Your task to perform on an android device: Play the last video I watched on Youtube Image 0: 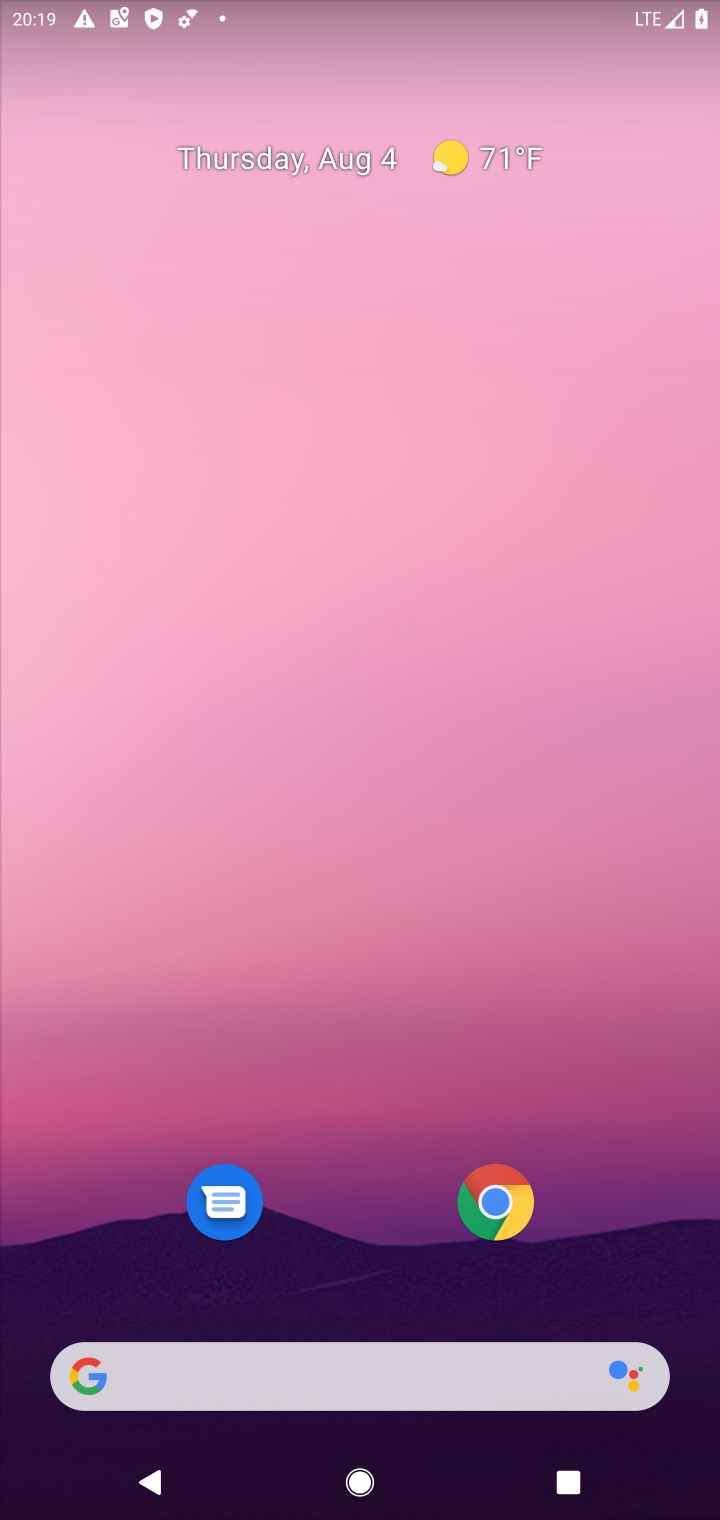
Step 0: drag from (342, 914) to (342, 196)
Your task to perform on an android device: Play the last video I watched on Youtube Image 1: 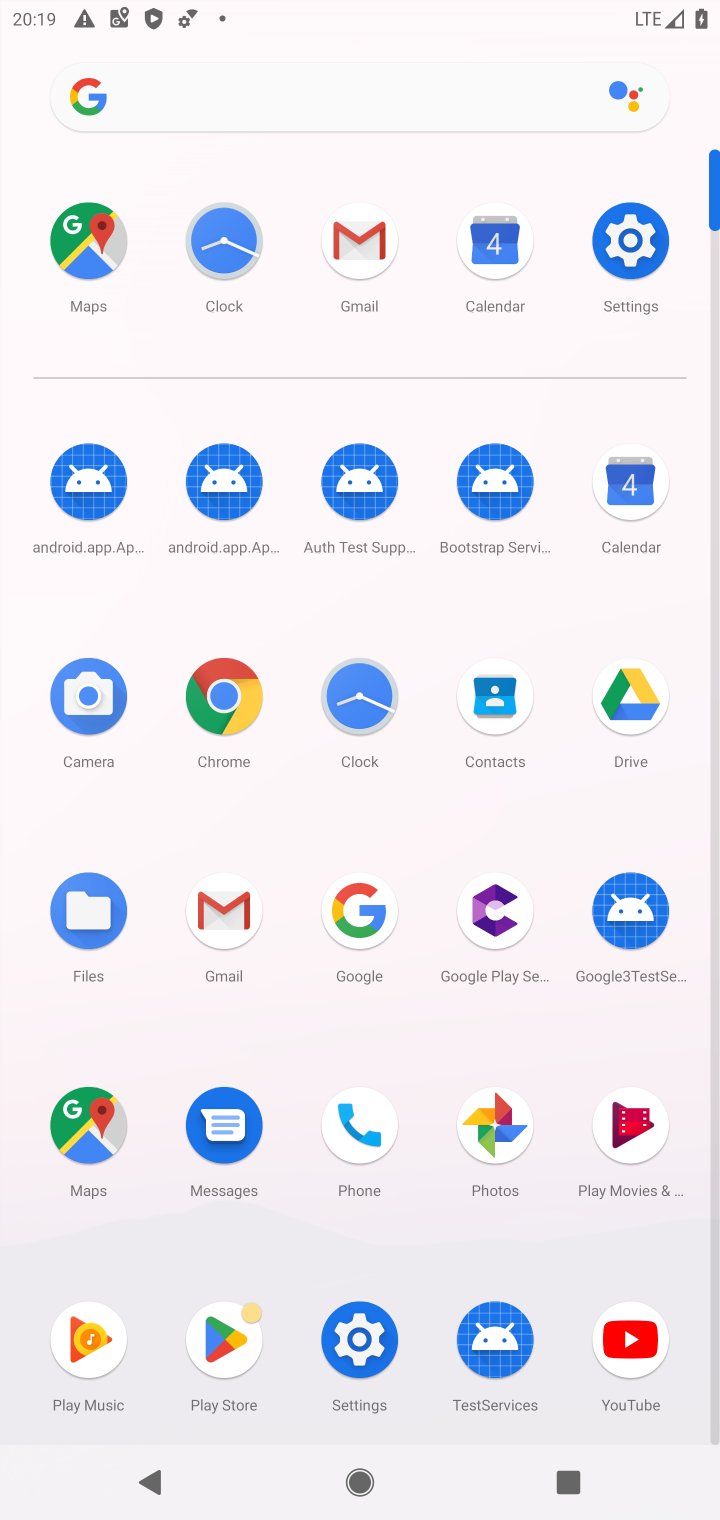
Step 1: click (639, 1332)
Your task to perform on an android device: Play the last video I watched on Youtube Image 2: 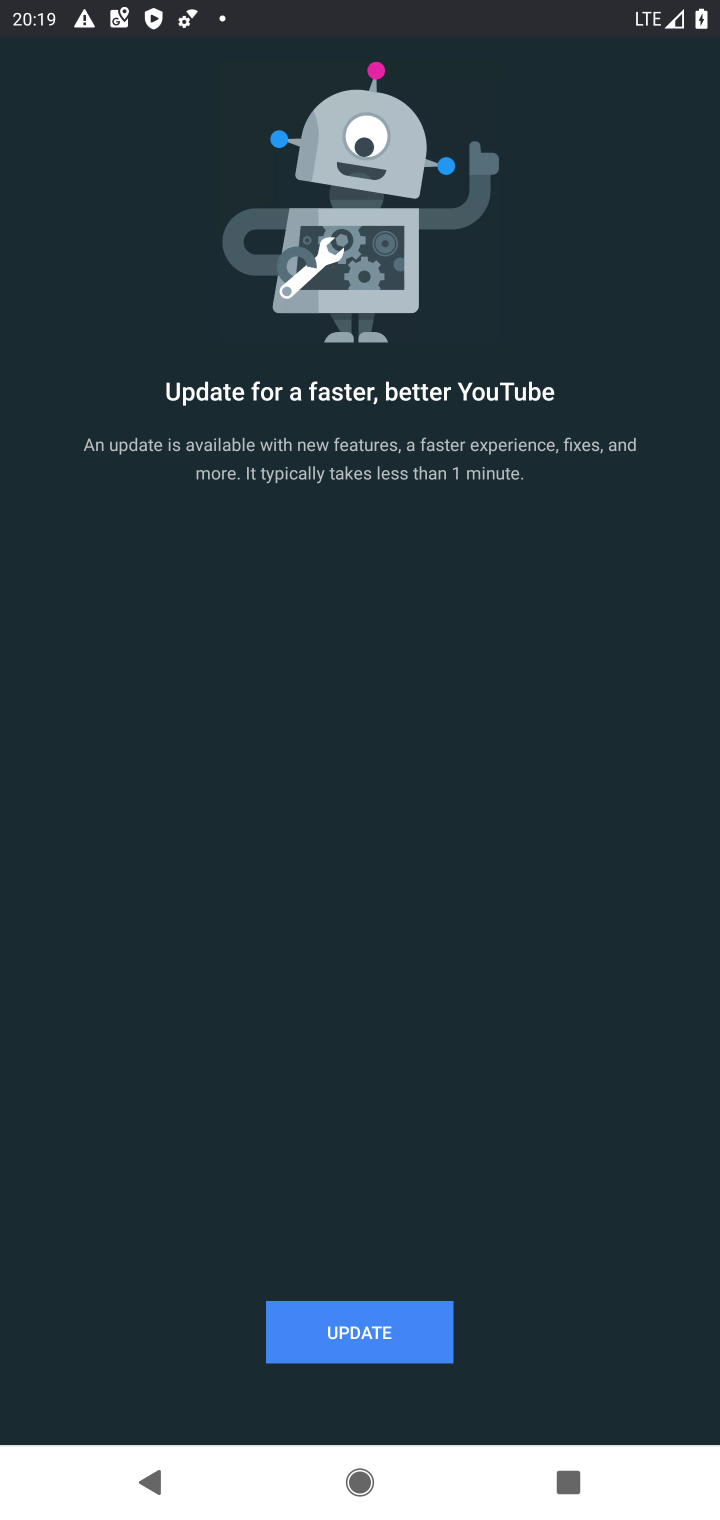
Step 2: click (342, 1346)
Your task to perform on an android device: Play the last video I watched on Youtube Image 3: 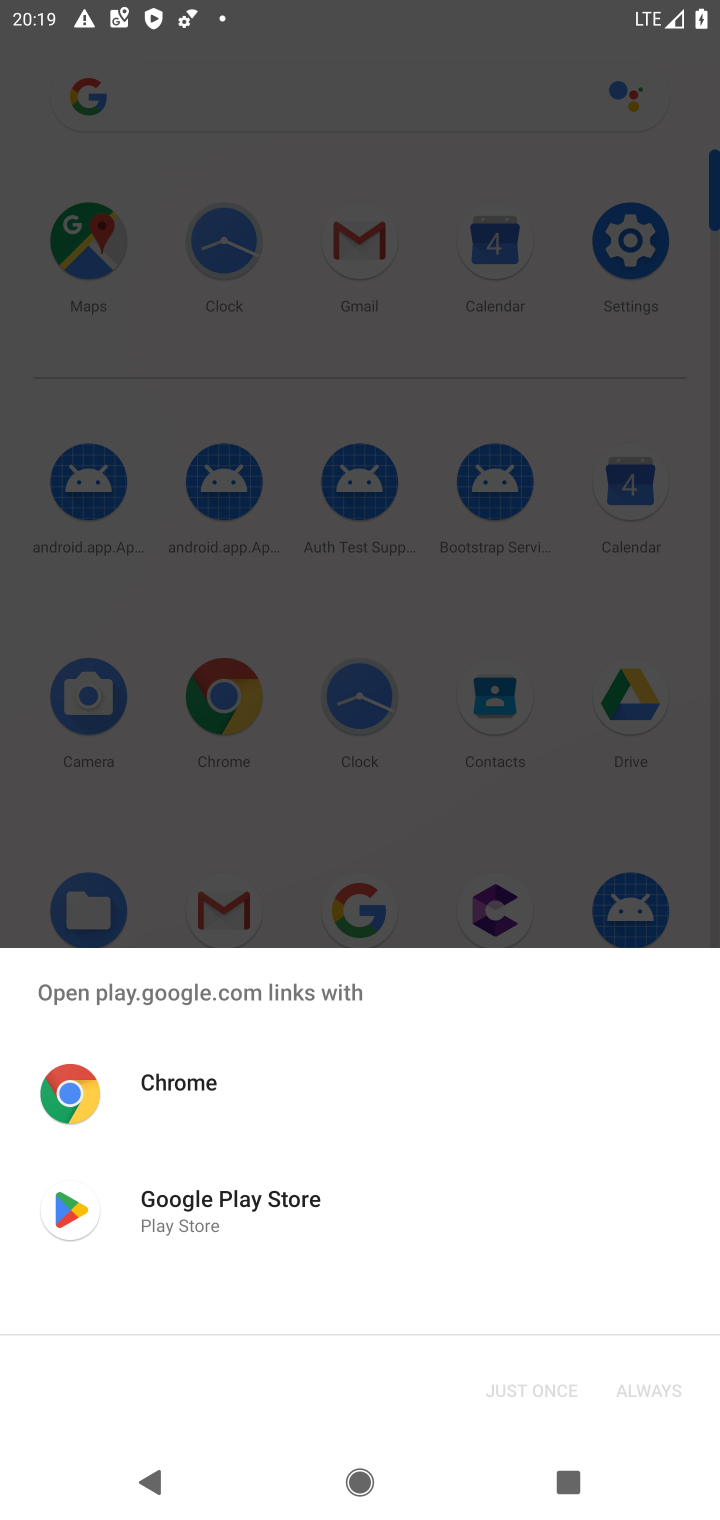
Step 3: click (221, 1185)
Your task to perform on an android device: Play the last video I watched on Youtube Image 4: 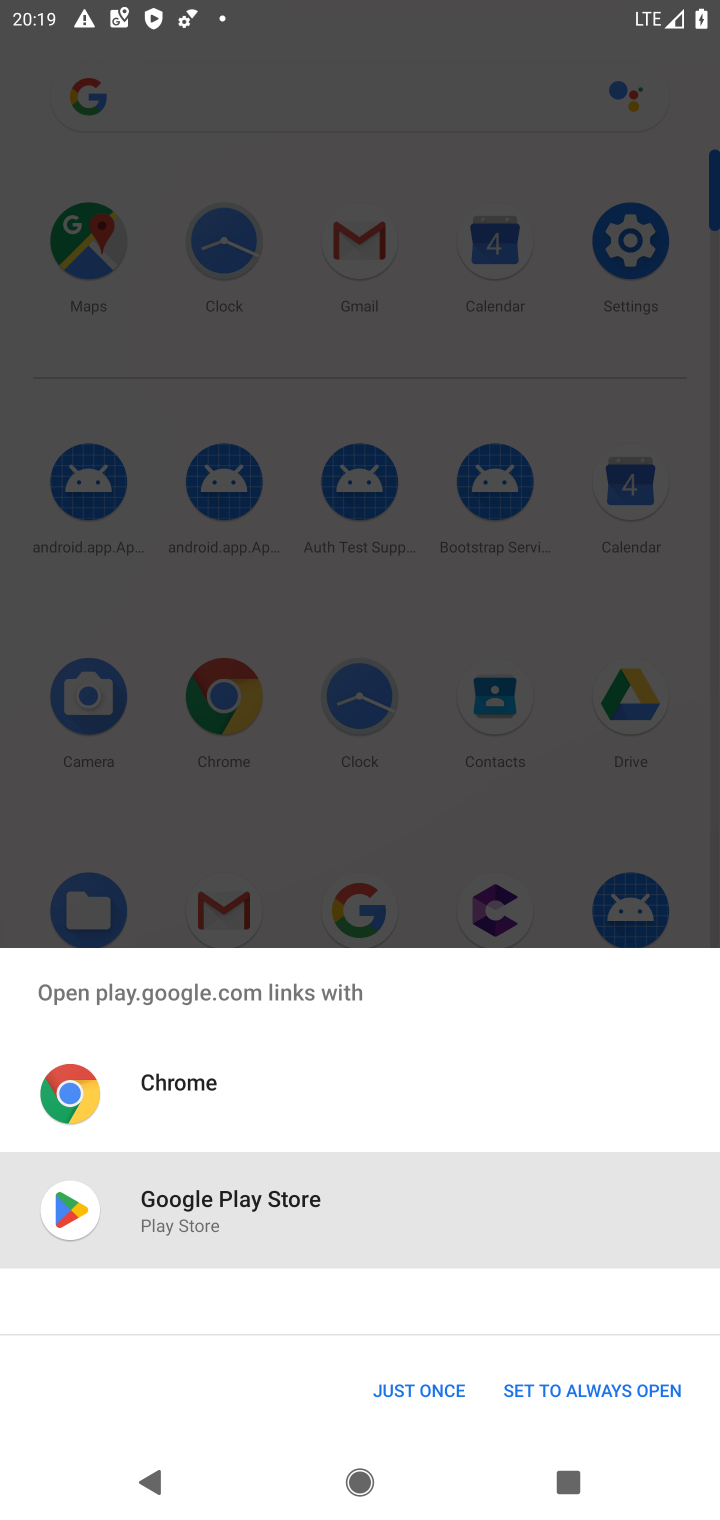
Step 4: click (397, 1391)
Your task to perform on an android device: Play the last video I watched on Youtube Image 5: 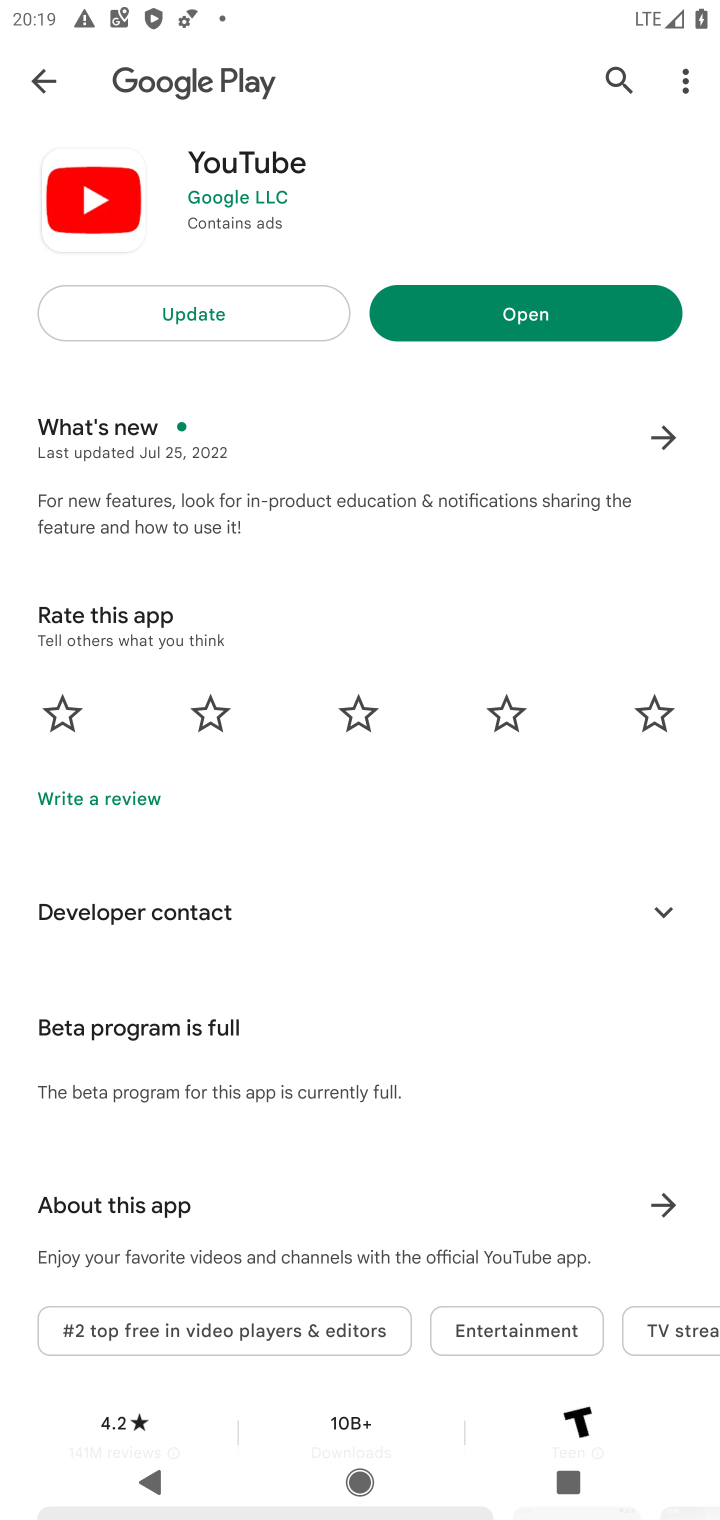
Step 5: click (227, 323)
Your task to perform on an android device: Play the last video I watched on Youtube Image 6: 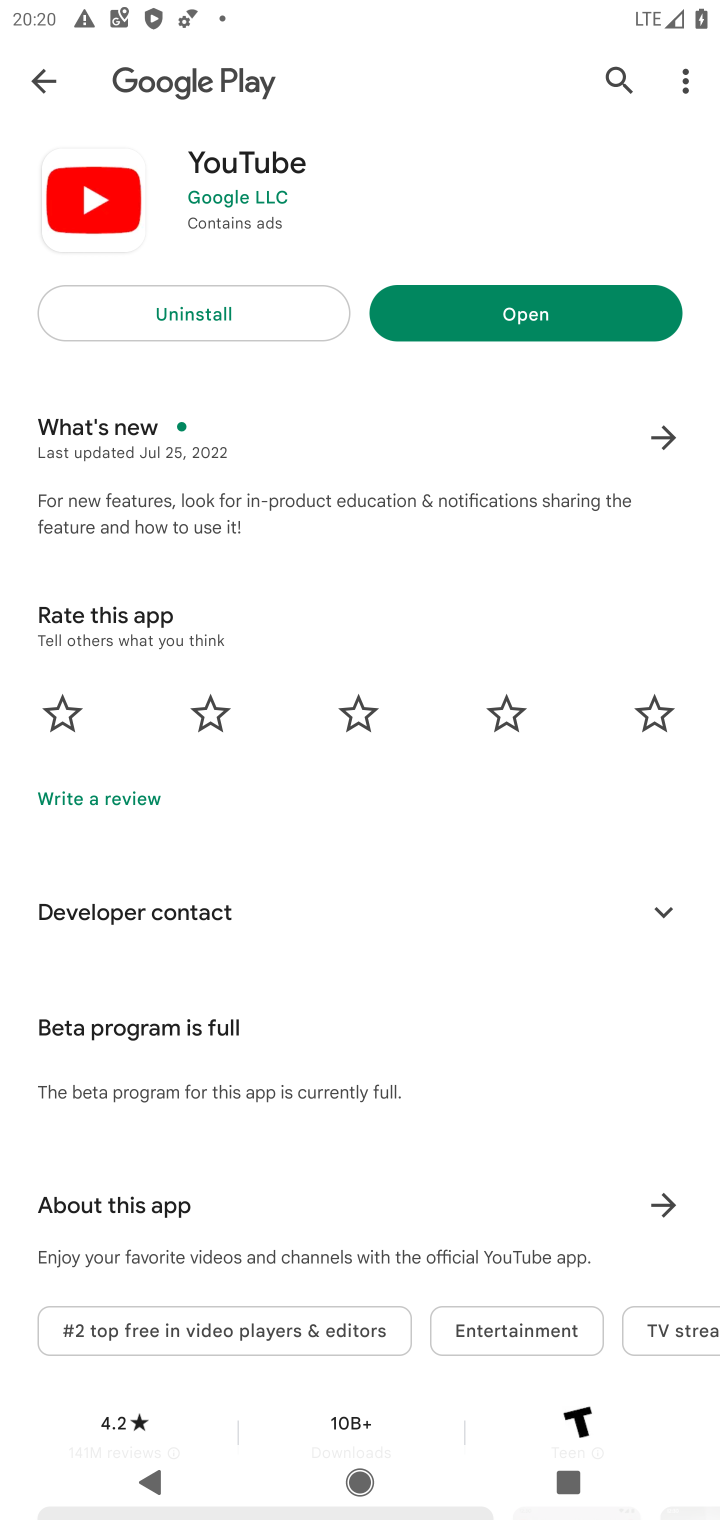
Step 6: click (558, 316)
Your task to perform on an android device: Play the last video I watched on Youtube Image 7: 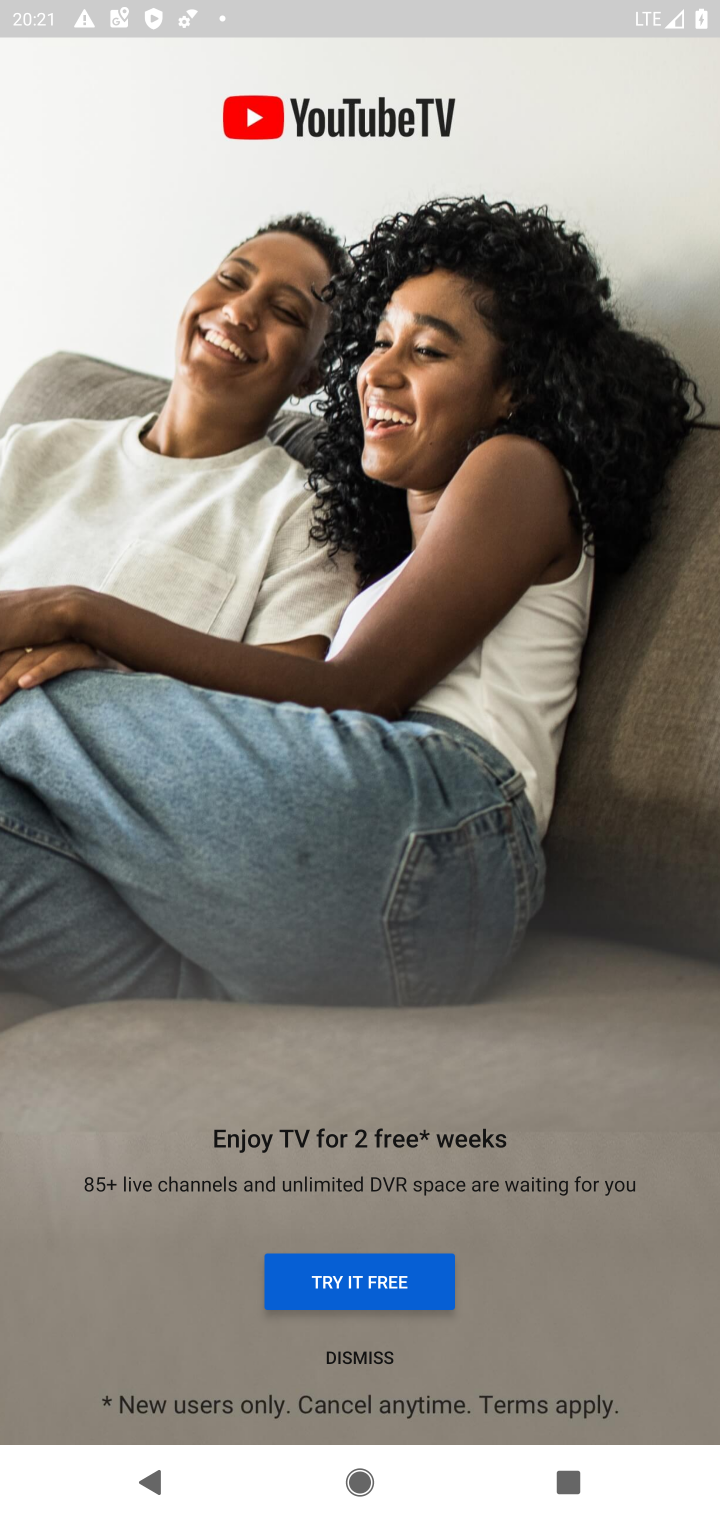
Step 7: click (382, 1287)
Your task to perform on an android device: Play the last video I watched on Youtube Image 8: 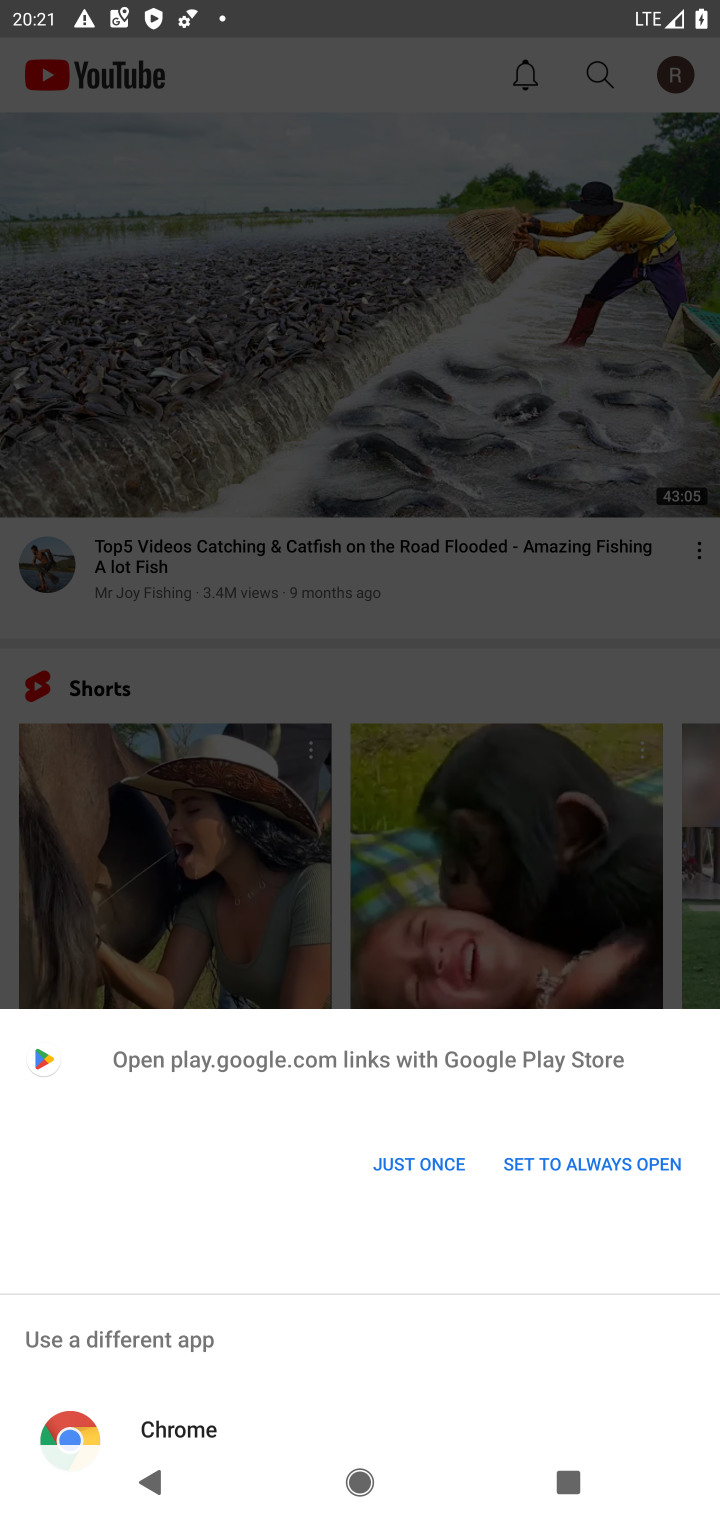
Step 8: click (486, 779)
Your task to perform on an android device: Play the last video I watched on Youtube Image 9: 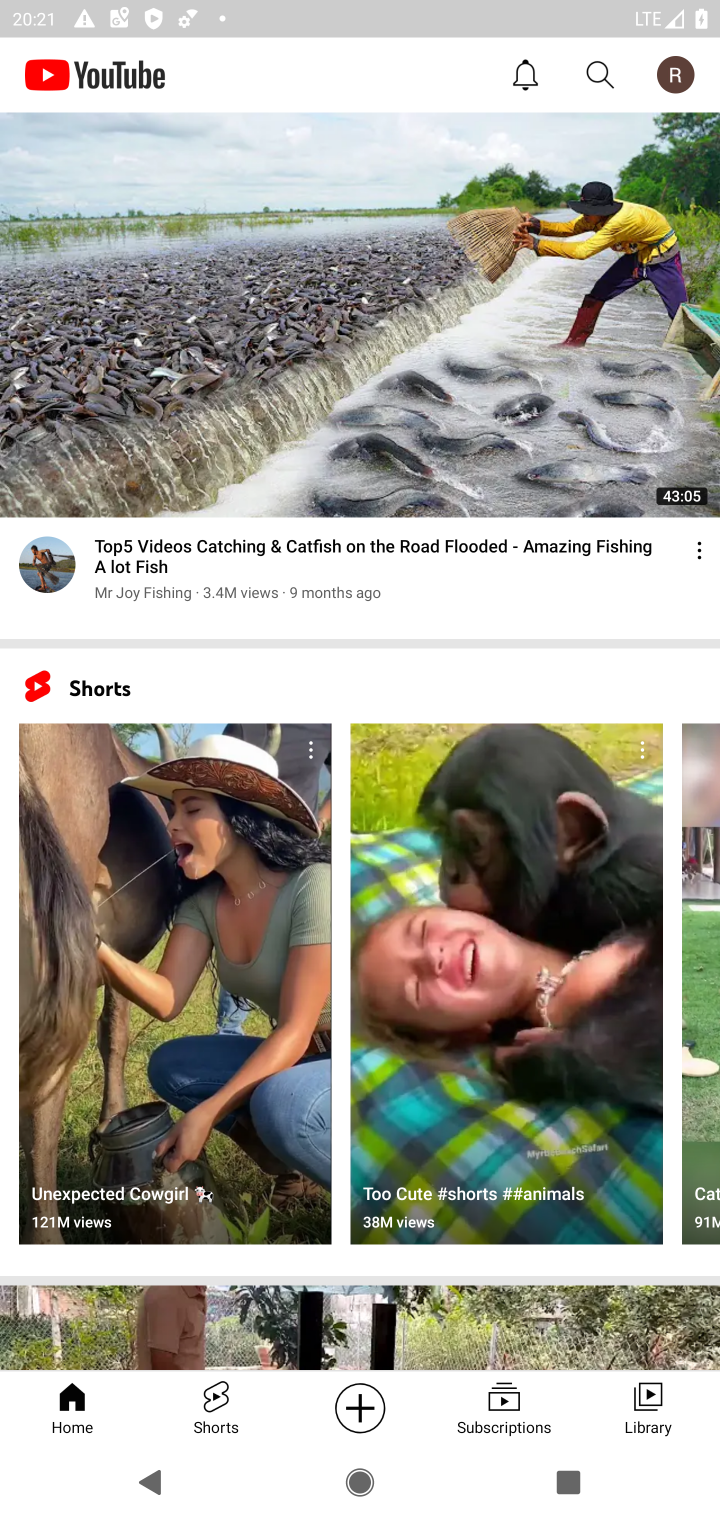
Step 9: click (650, 1432)
Your task to perform on an android device: Play the last video I watched on Youtube Image 10: 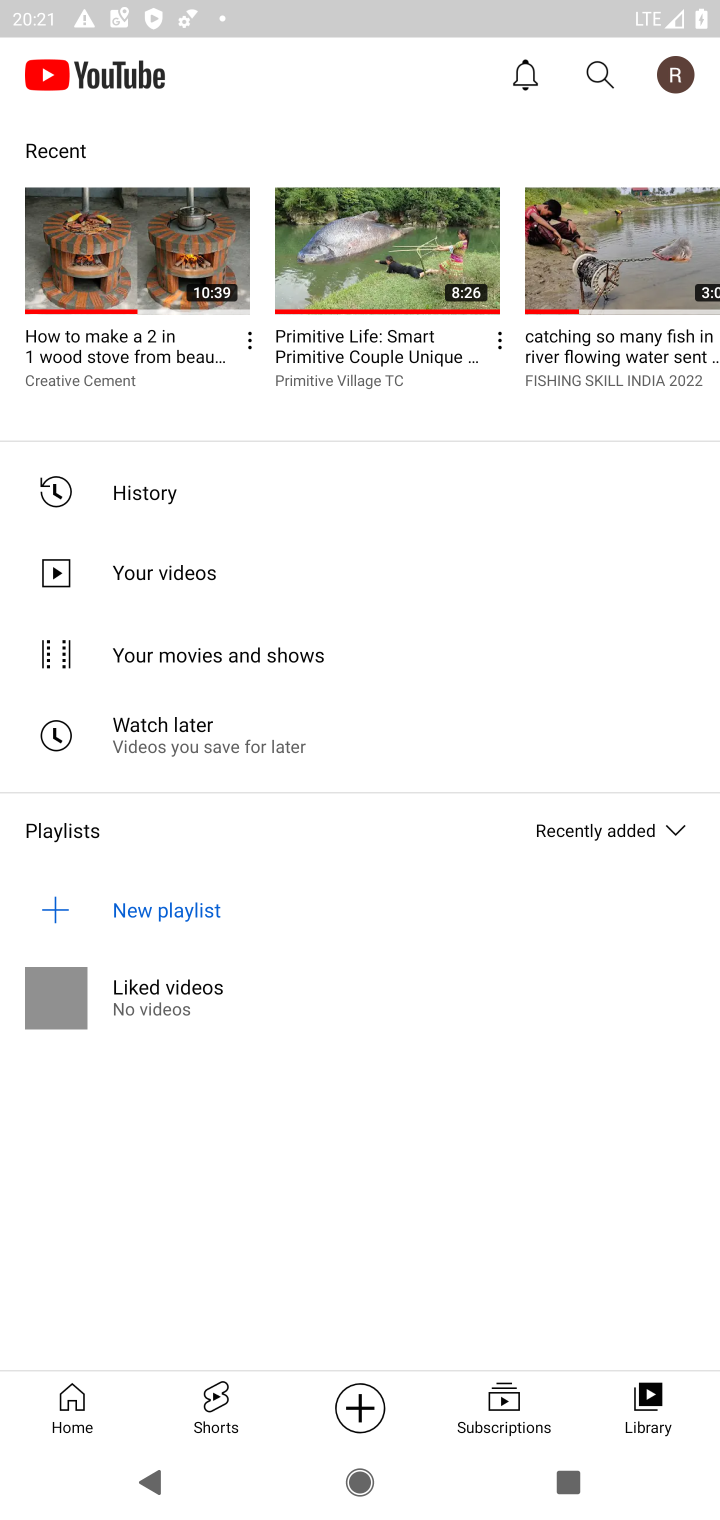
Step 10: click (200, 480)
Your task to perform on an android device: Play the last video I watched on Youtube Image 11: 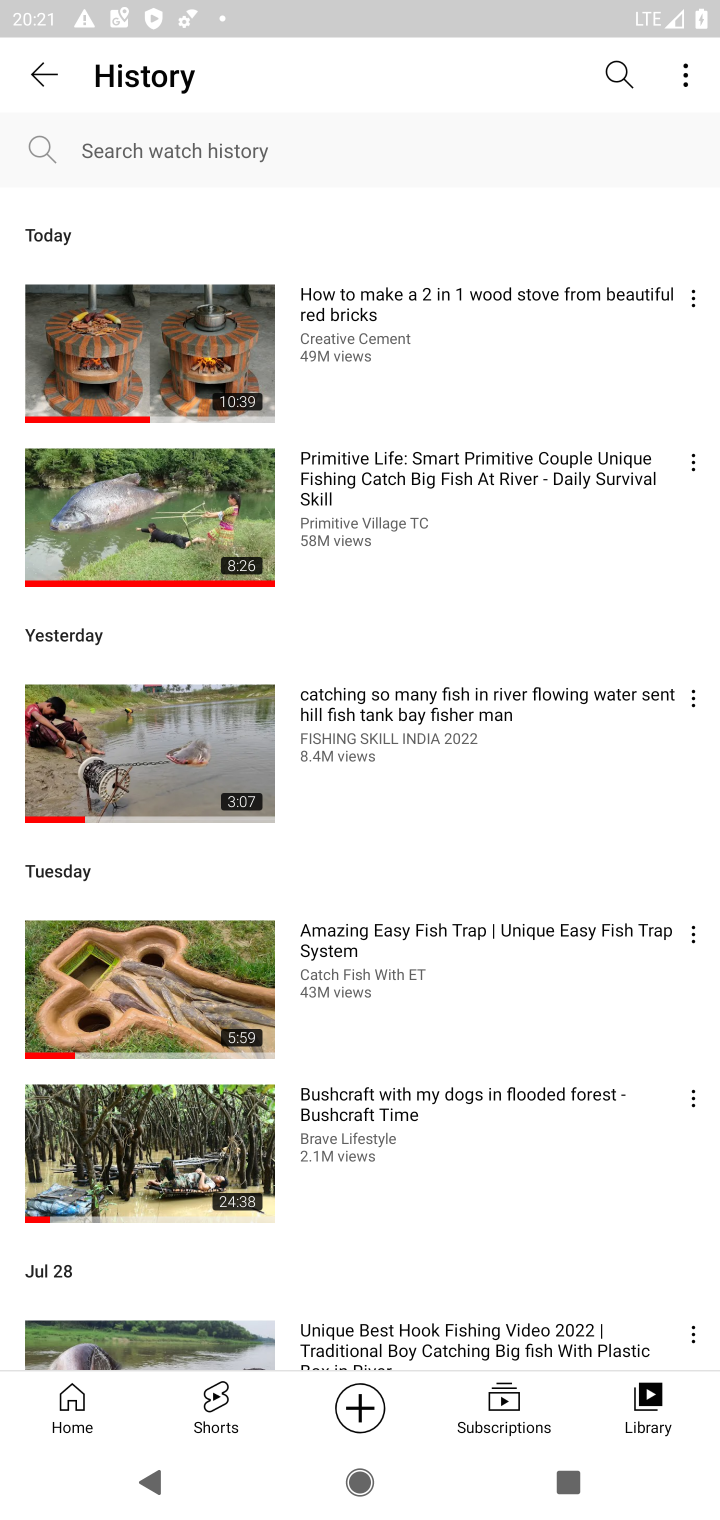
Step 11: click (171, 334)
Your task to perform on an android device: Play the last video I watched on Youtube Image 12: 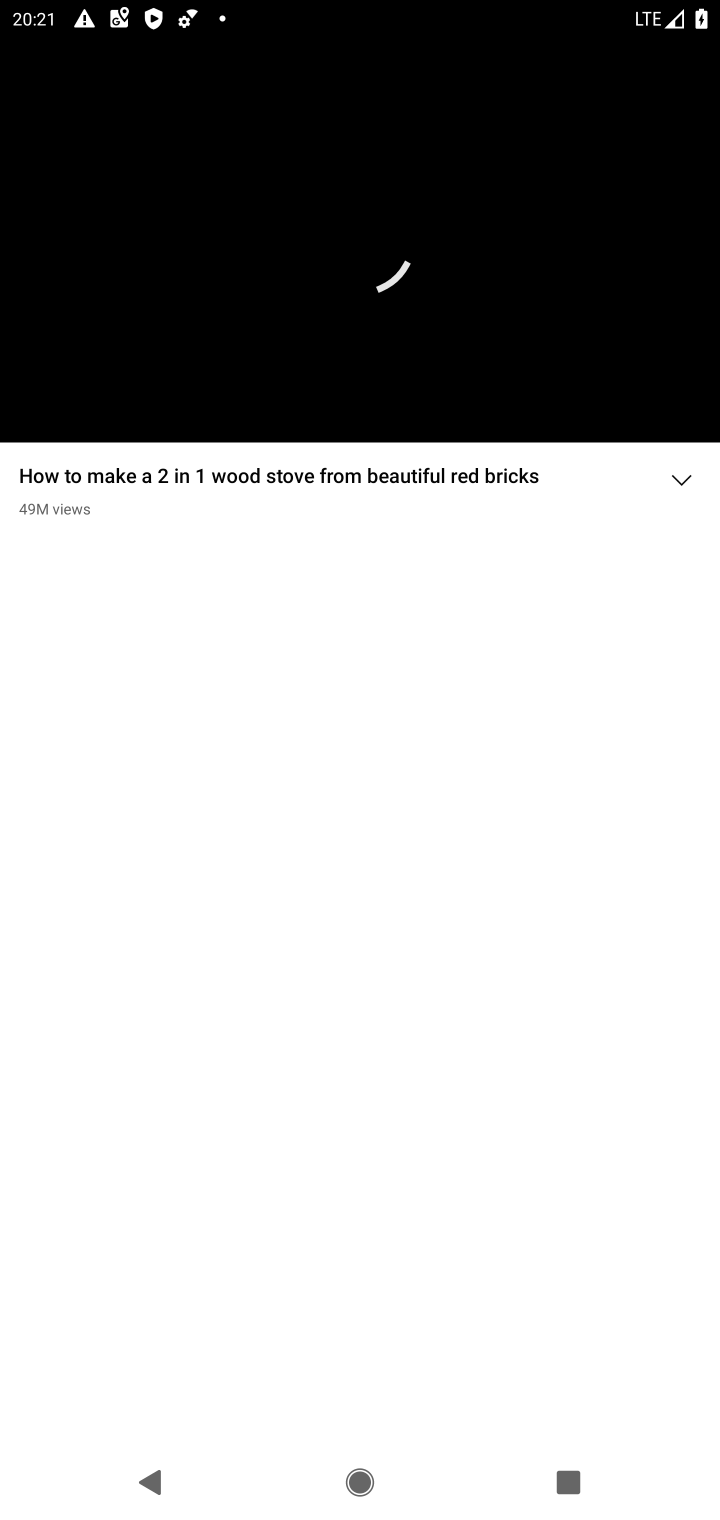
Step 12: click (359, 262)
Your task to perform on an android device: Play the last video I watched on Youtube Image 13: 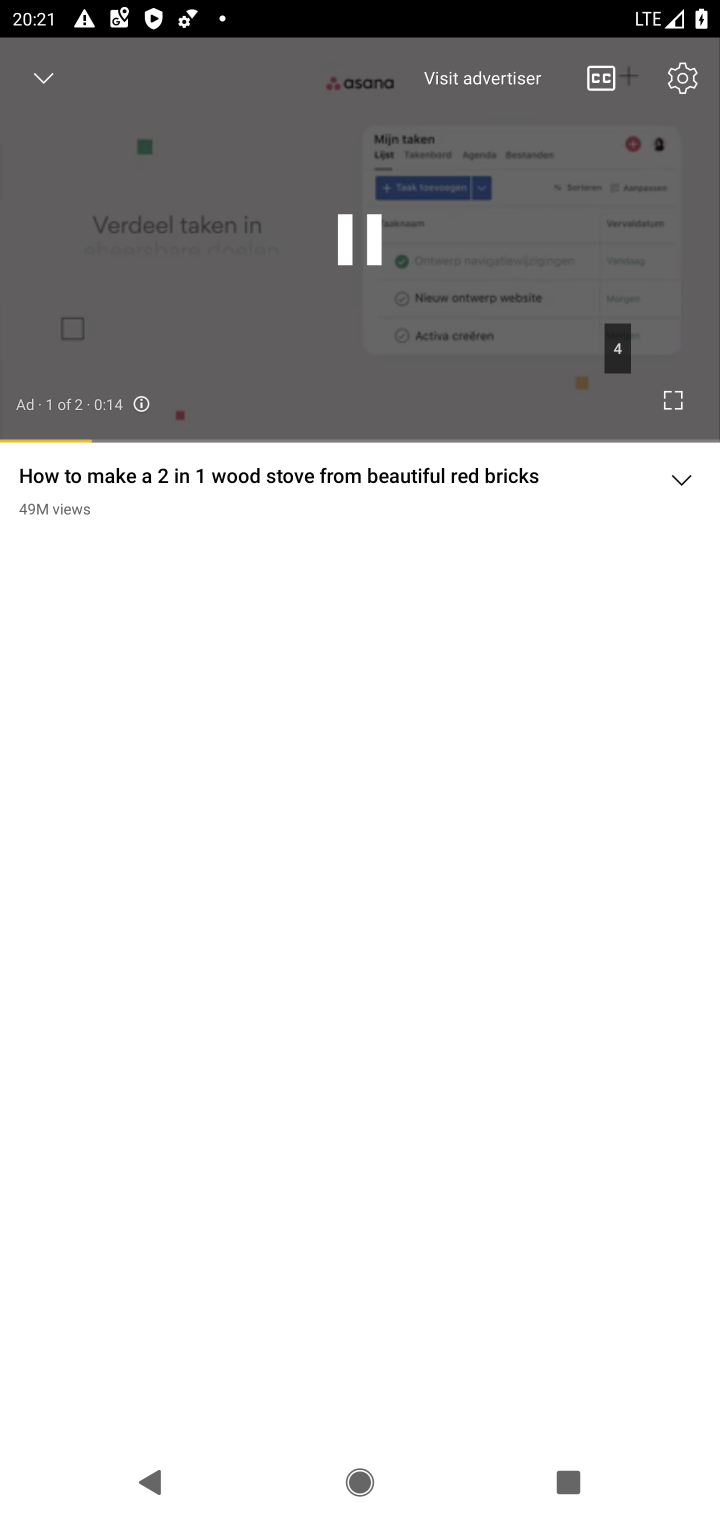
Step 13: click (362, 260)
Your task to perform on an android device: Play the last video I watched on Youtube Image 14: 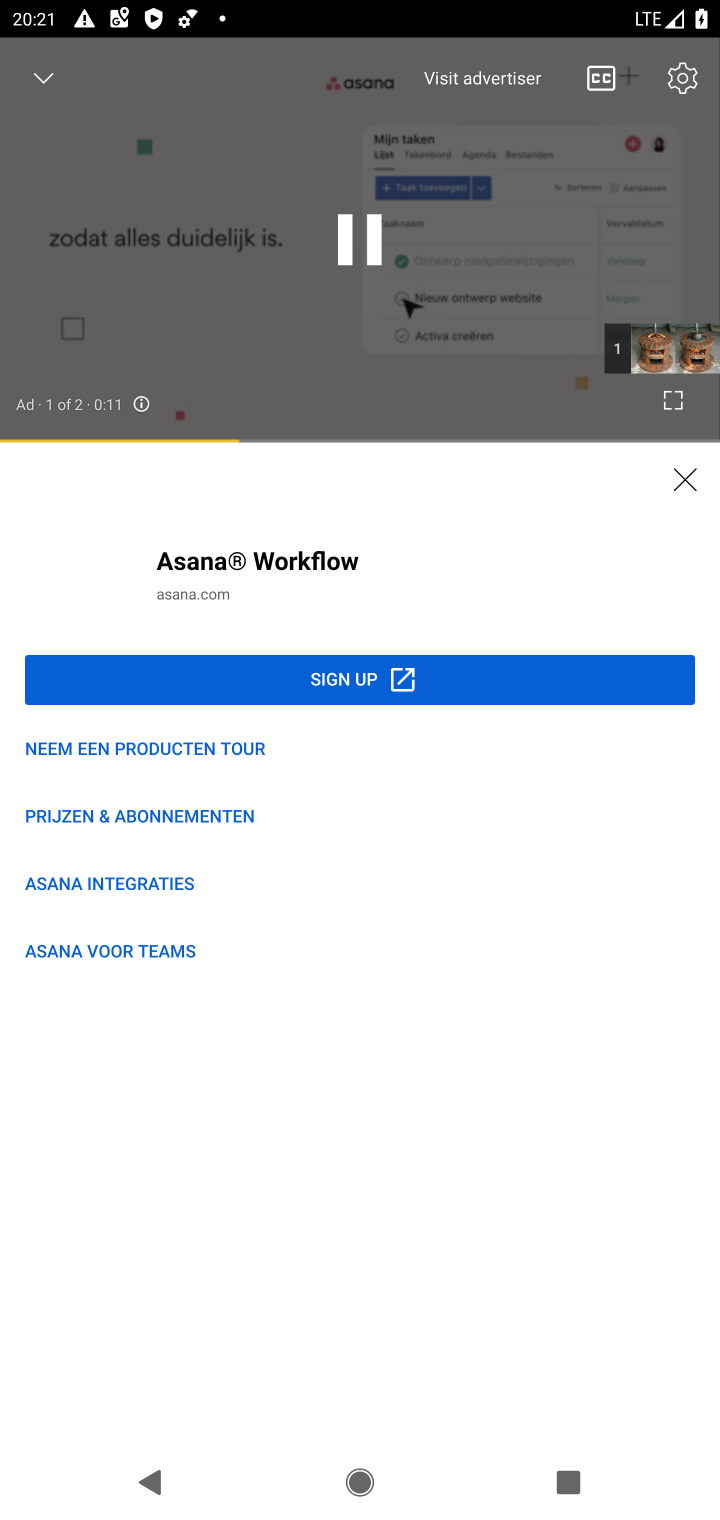
Step 14: click (312, 280)
Your task to perform on an android device: Play the last video I watched on Youtube Image 15: 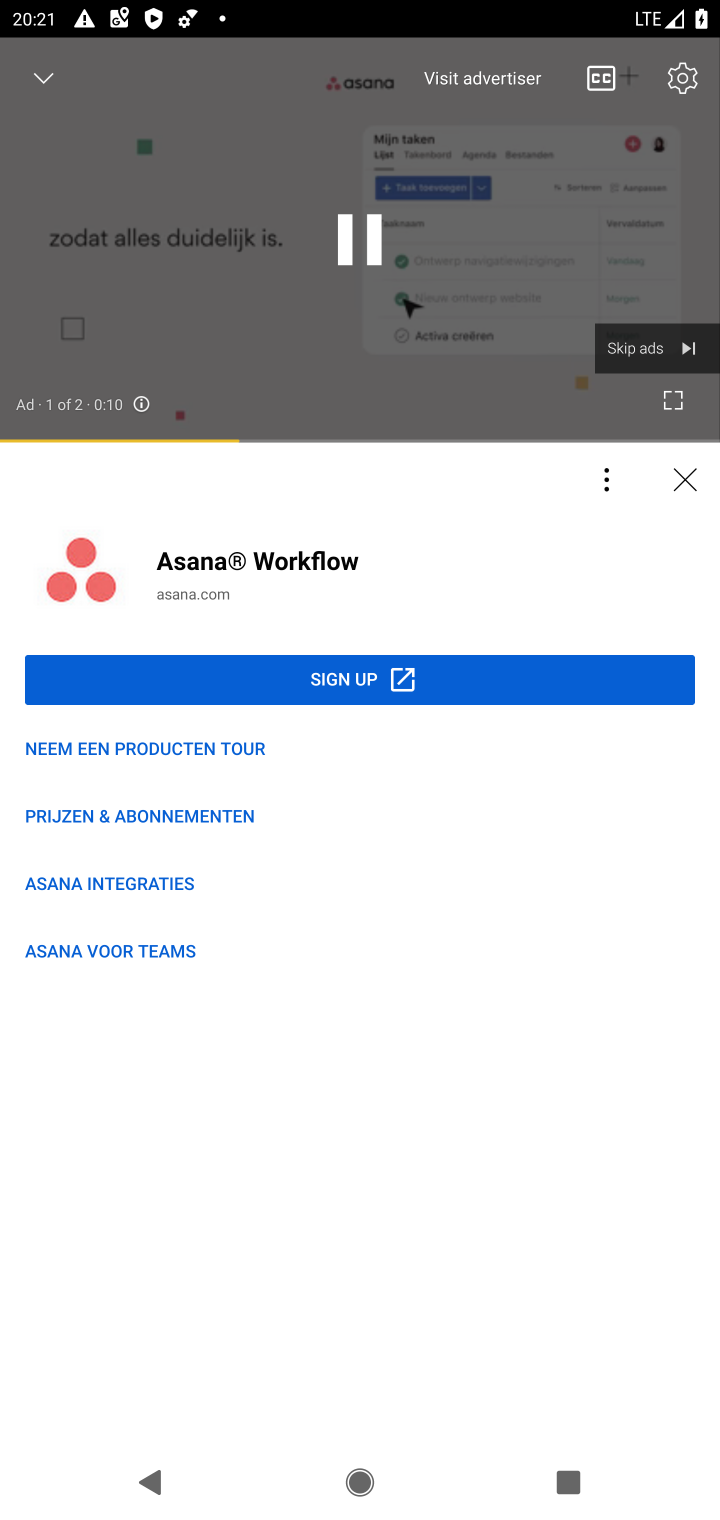
Step 15: click (358, 231)
Your task to perform on an android device: Play the last video I watched on Youtube Image 16: 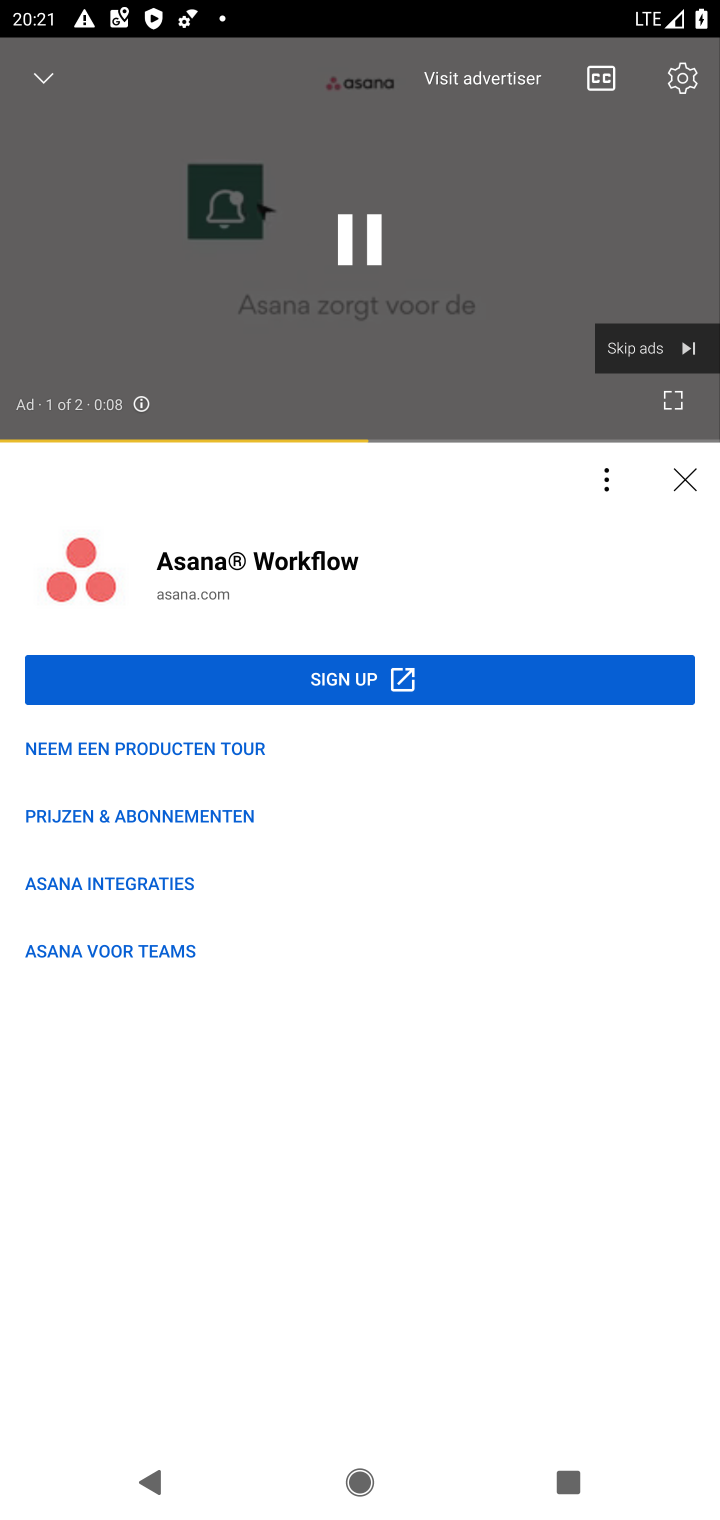
Step 16: click (364, 243)
Your task to perform on an android device: Play the last video I watched on Youtube Image 17: 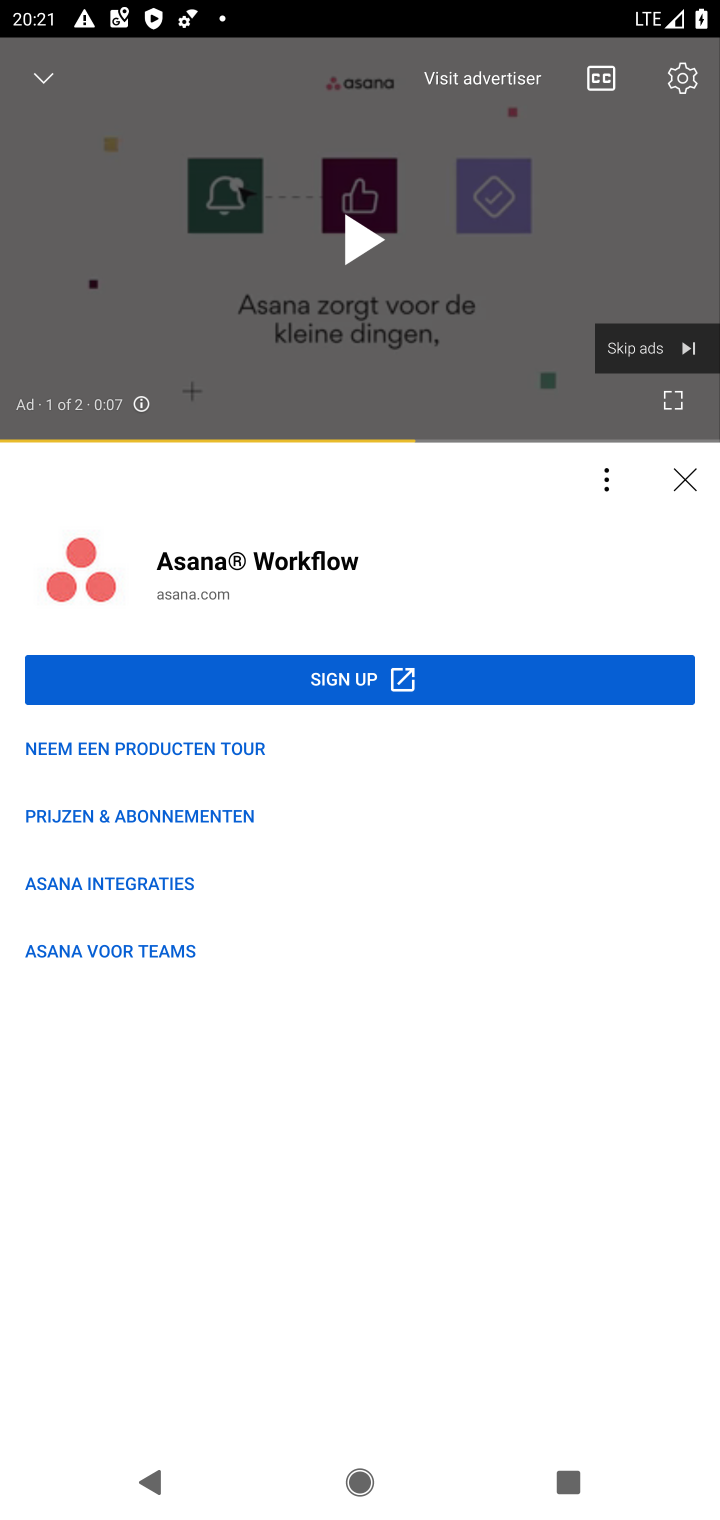
Step 17: click (366, 242)
Your task to perform on an android device: Play the last video I watched on Youtube Image 18: 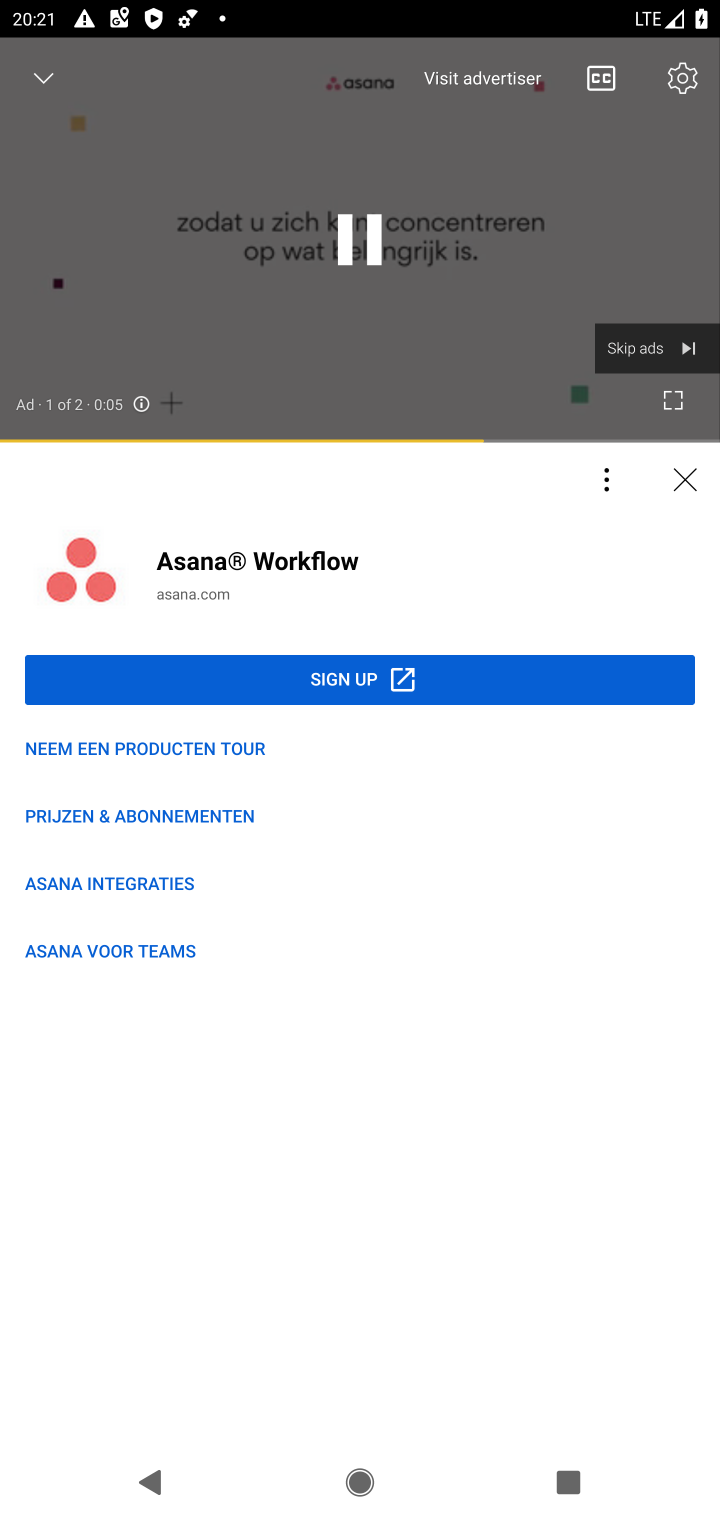
Step 18: click (371, 250)
Your task to perform on an android device: Play the last video I watched on Youtube Image 19: 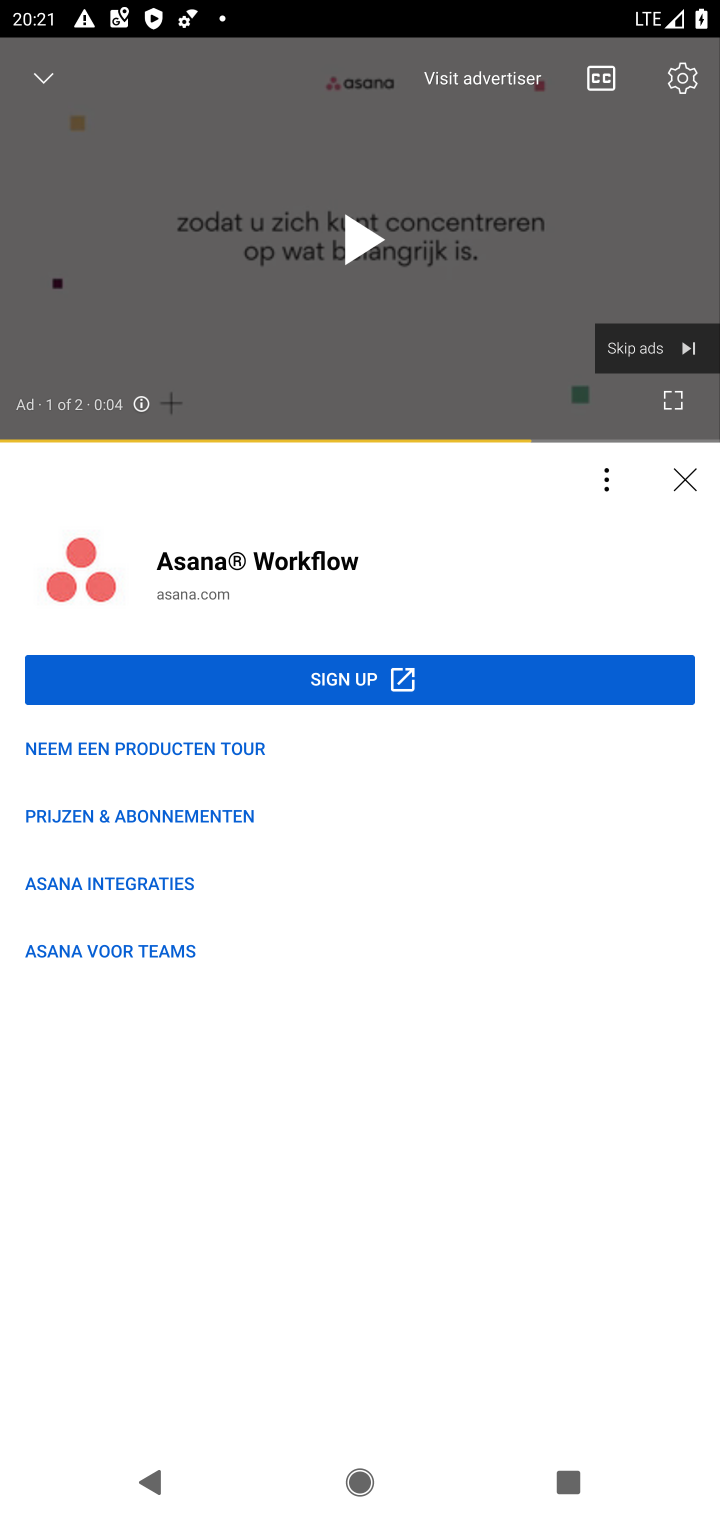
Step 19: task complete